Your task to perform on an android device: Open the web browser Image 0: 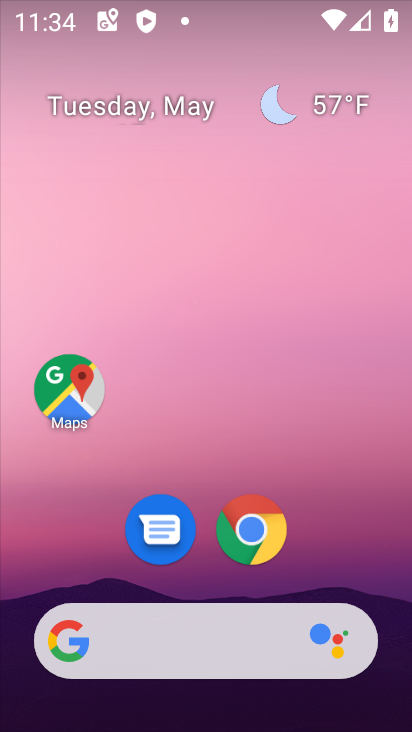
Step 0: click (195, 623)
Your task to perform on an android device: Open the web browser Image 1: 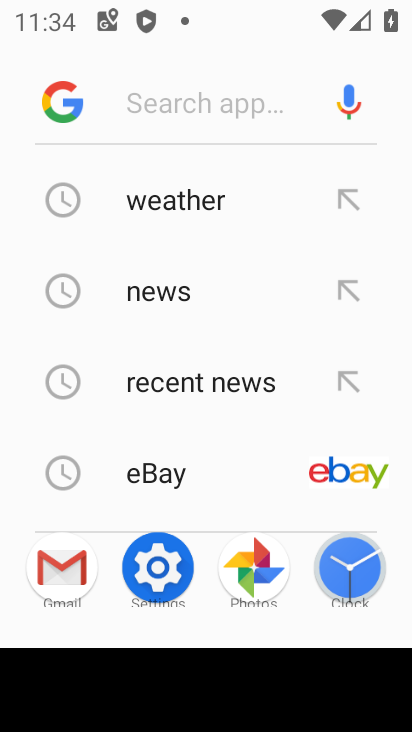
Step 1: task complete